Your task to perform on an android device: open a new tab in the chrome app Image 0: 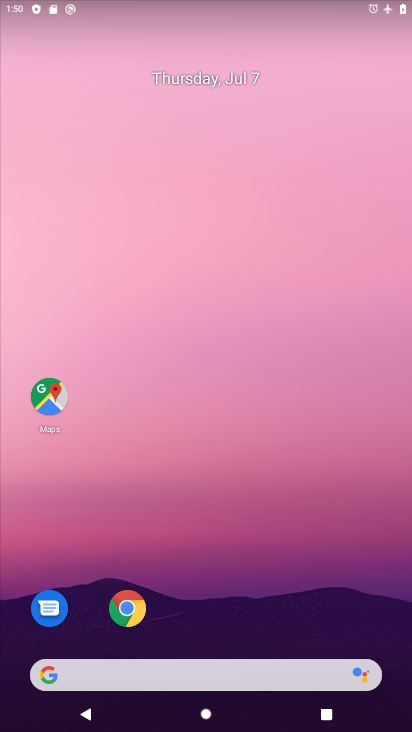
Step 0: click (130, 605)
Your task to perform on an android device: open a new tab in the chrome app Image 1: 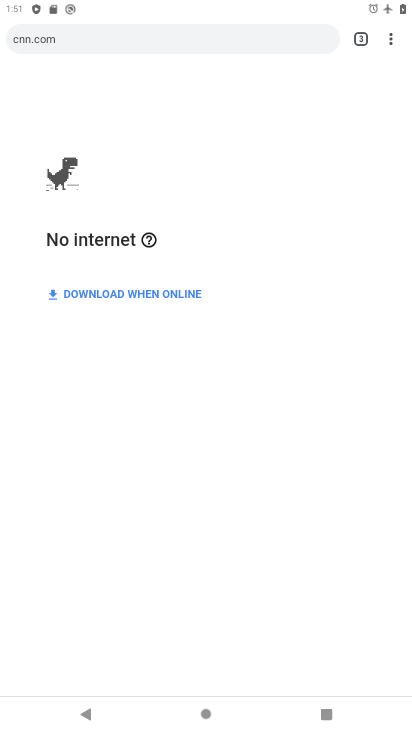
Step 1: click (392, 41)
Your task to perform on an android device: open a new tab in the chrome app Image 2: 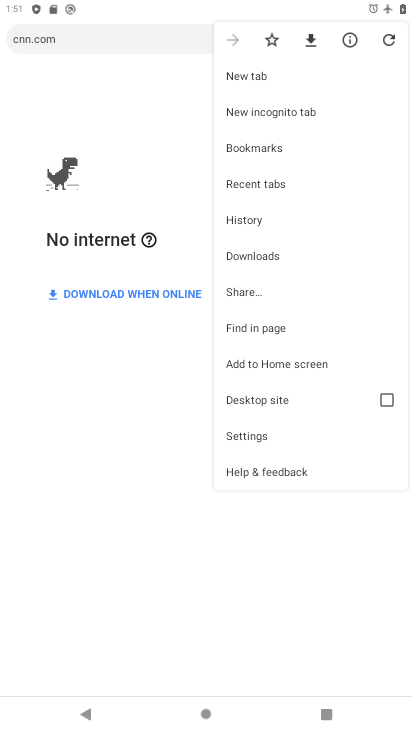
Step 2: click (259, 73)
Your task to perform on an android device: open a new tab in the chrome app Image 3: 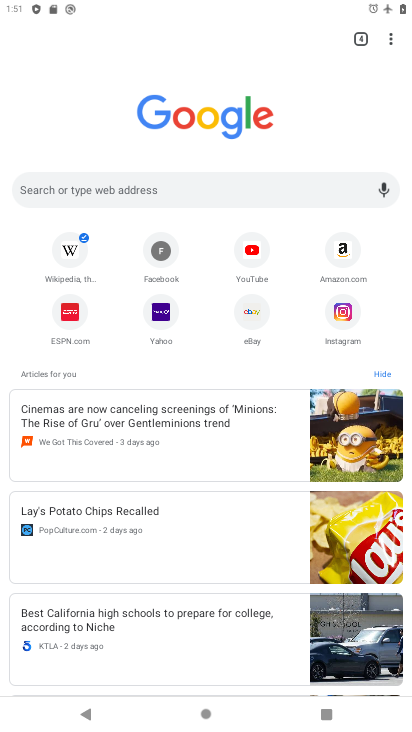
Step 3: task complete